Your task to perform on an android device: Open Amazon Image 0: 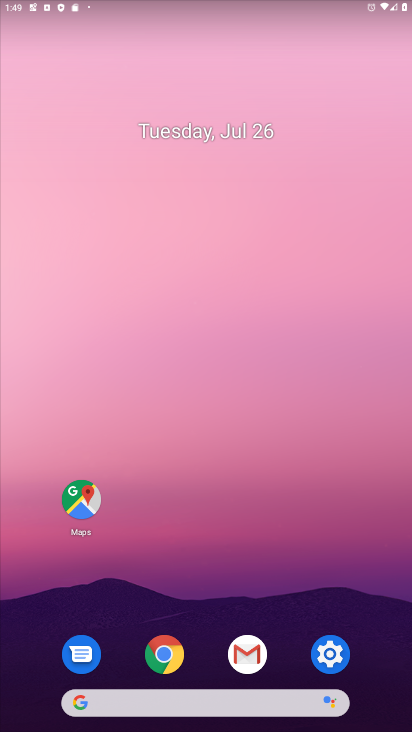
Step 0: click (168, 651)
Your task to perform on an android device: Open Amazon Image 1: 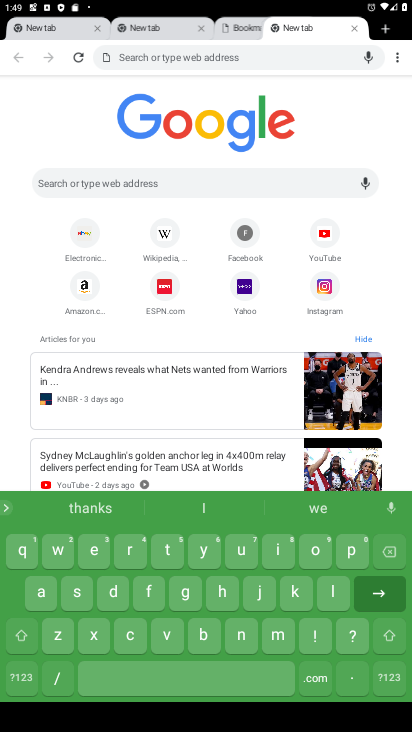
Step 1: click (84, 278)
Your task to perform on an android device: Open Amazon Image 2: 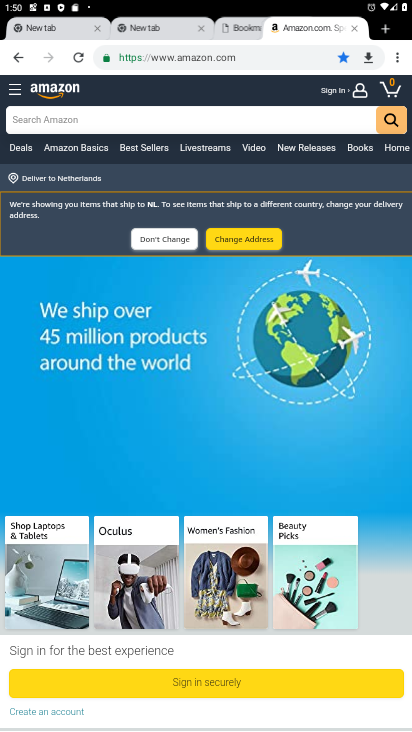
Step 2: task complete